Your task to perform on an android device: add a label to a message in the gmail app Image 0: 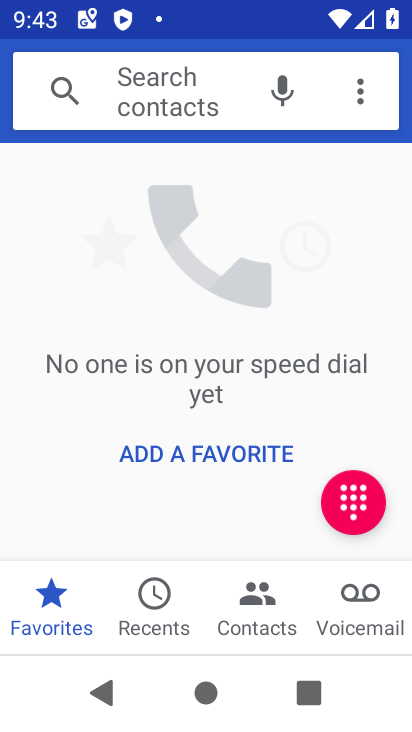
Step 0: press home button
Your task to perform on an android device: add a label to a message in the gmail app Image 1: 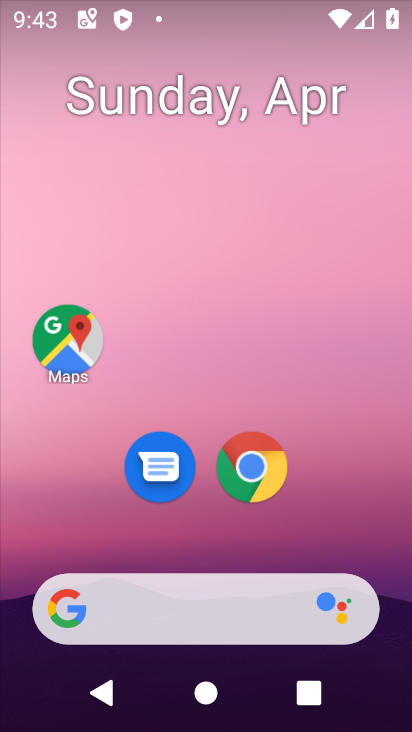
Step 1: drag from (194, 412) to (219, 70)
Your task to perform on an android device: add a label to a message in the gmail app Image 2: 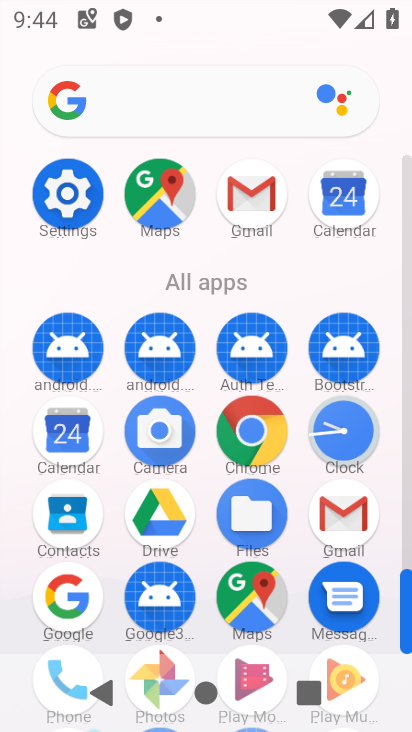
Step 2: click (239, 205)
Your task to perform on an android device: add a label to a message in the gmail app Image 3: 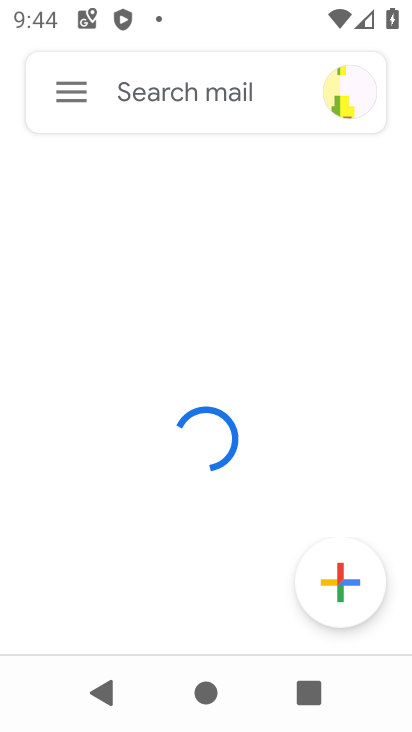
Step 3: task complete